Your task to perform on an android device: create a new album in the google photos Image 0: 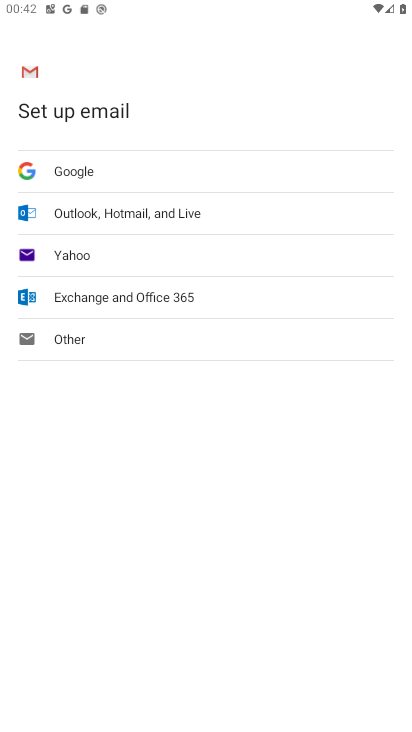
Step 0: press home button
Your task to perform on an android device: create a new album in the google photos Image 1: 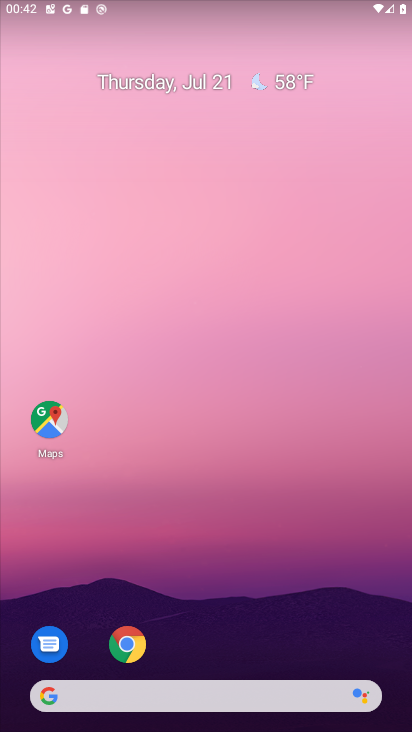
Step 1: drag from (236, 720) to (210, 188)
Your task to perform on an android device: create a new album in the google photos Image 2: 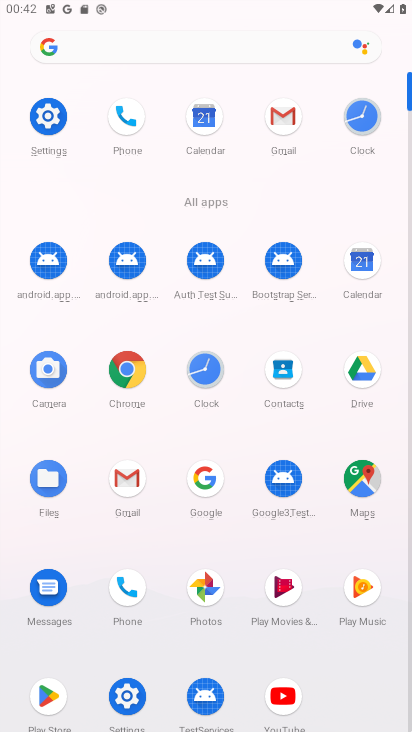
Step 2: click (195, 583)
Your task to perform on an android device: create a new album in the google photos Image 3: 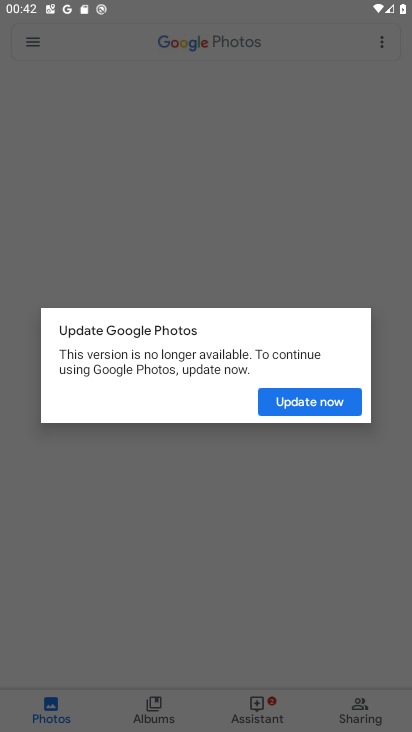
Step 3: click (298, 403)
Your task to perform on an android device: create a new album in the google photos Image 4: 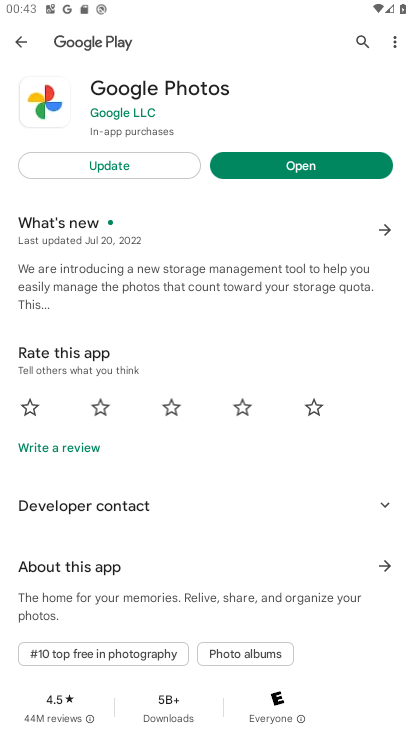
Step 4: click (137, 163)
Your task to perform on an android device: create a new album in the google photos Image 5: 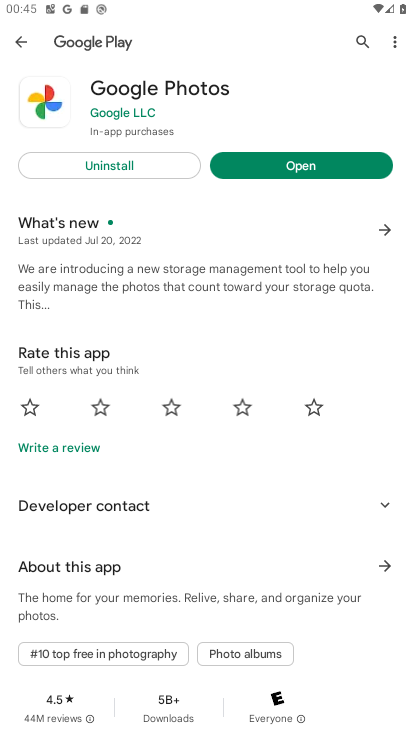
Step 5: click (251, 164)
Your task to perform on an android device: create a new album in the google photos Image 6: 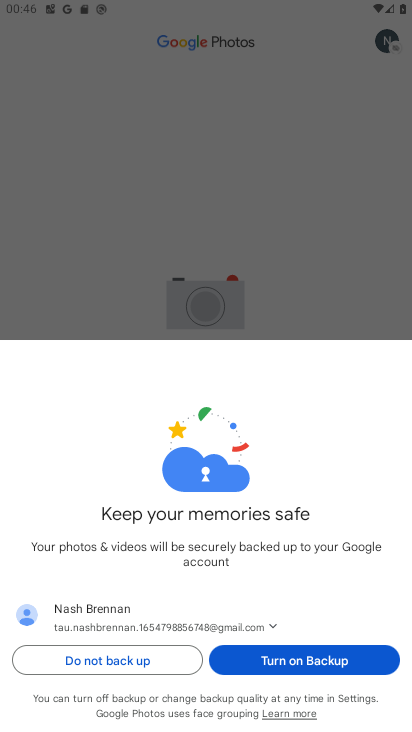
Step 6: click (308, 660)
Your task to perform on an android device: create a new album in the google photos Image 7: 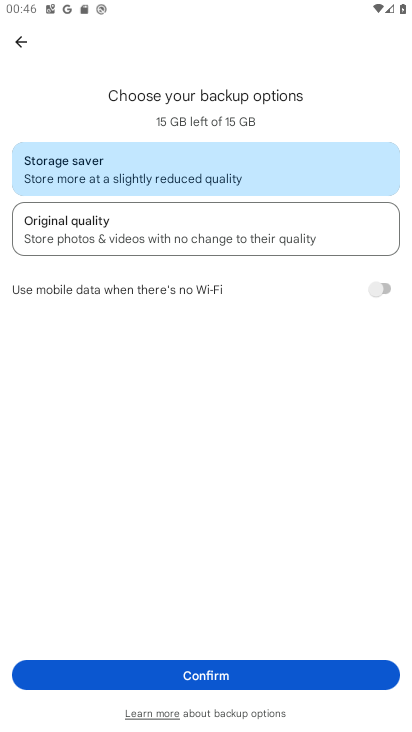
Step 7: click (174, 671)
Your task to perform on an android device: create a new album in the google photos Image 8: 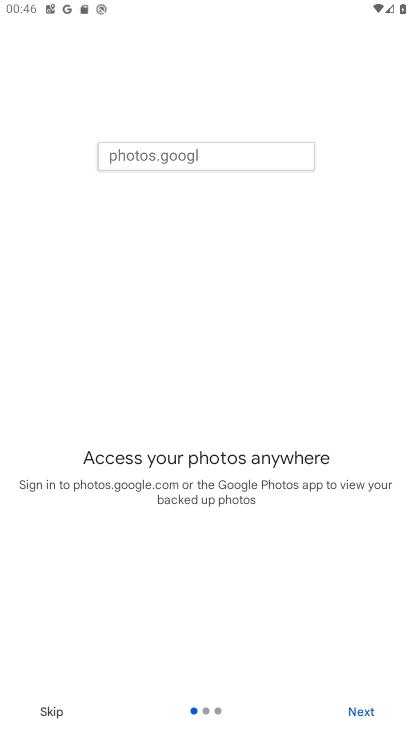
Step 8: click (364, 715)
Your task to perform on an android device: create a new album in the google photos Image 9: 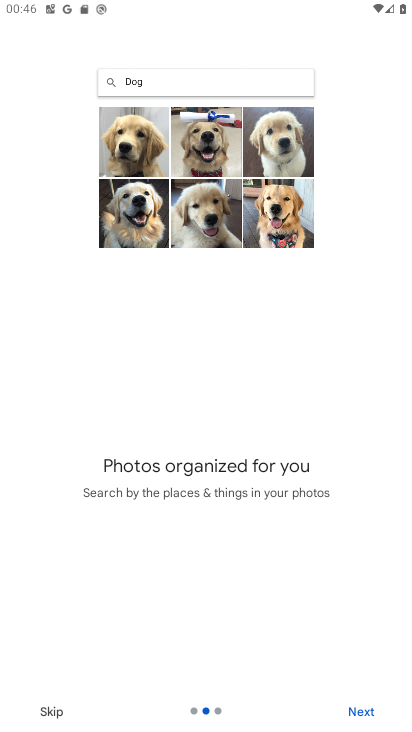
Step 9: click (367, 704)
Your task to perform on an android device: create a new album in the google photos Image 10: 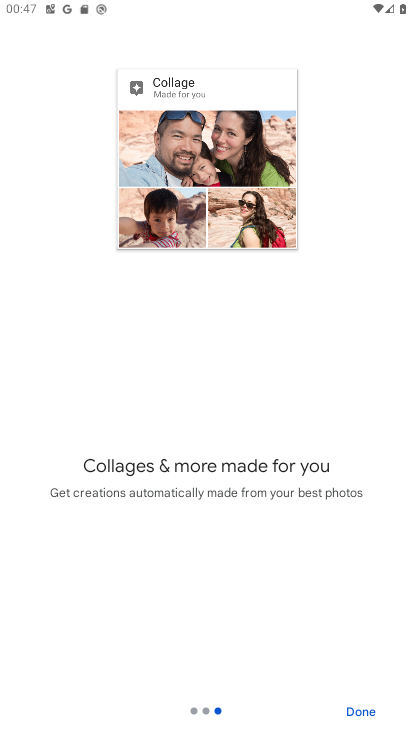
Step 10: click (370, 713)
Your task to perform on an android device: create a new album in the google photos Image 11: 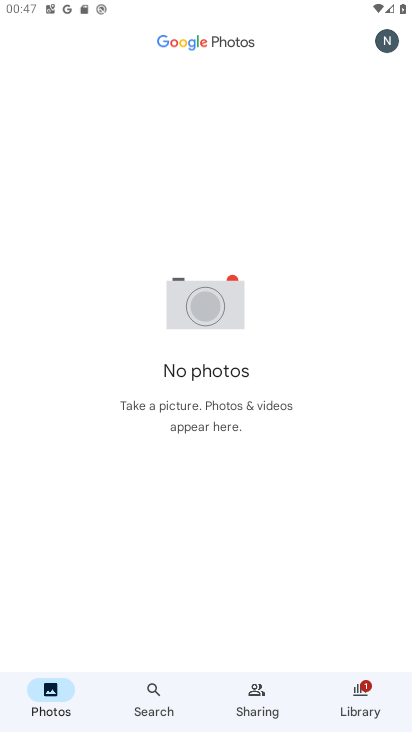
Step 11: task complete